Your task to perform on an android device: change timer sound Image 0: 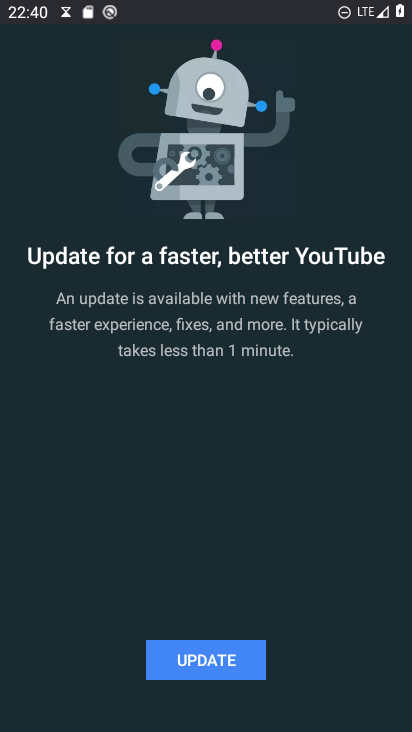
Step 0: press home button
Your task to perform on an android device: change timer sound Image 1: 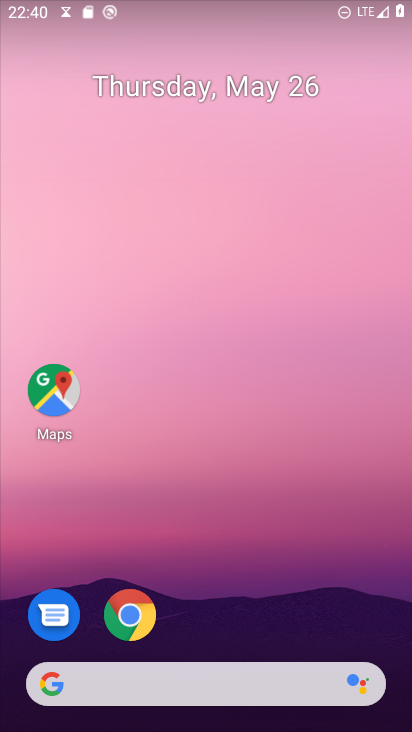
Step 1: drag from (280, 599) to (311, 246)
Your task to perform on an android device: change timer sound Image 2: 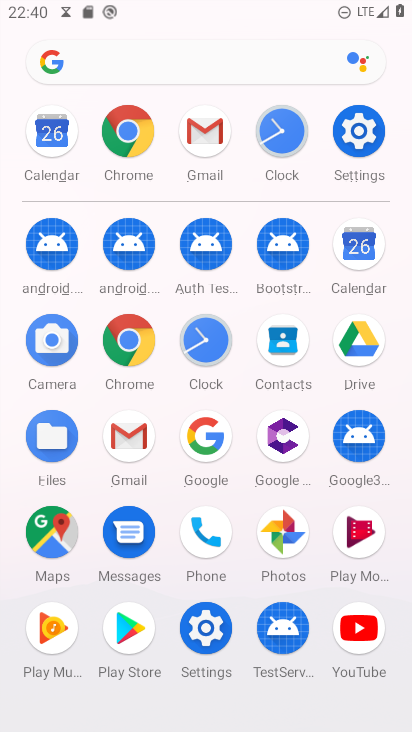
Step 2: click (280, 116)
Your task to perform on an android device: change timer sound Image 3: 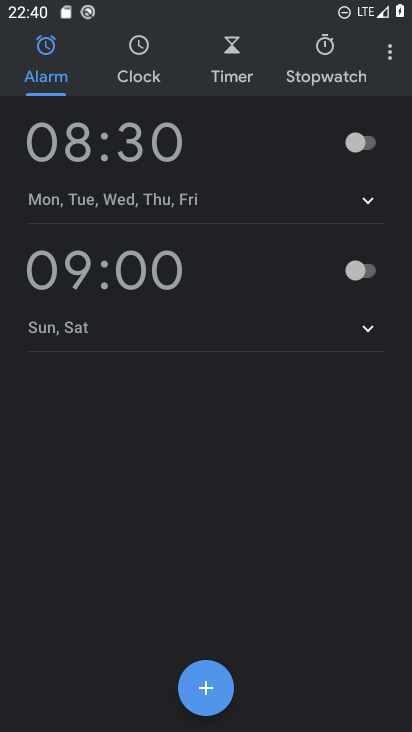
Step 3: click (393, 43)
Your task to perform on an android device: change timer sound Image 4: 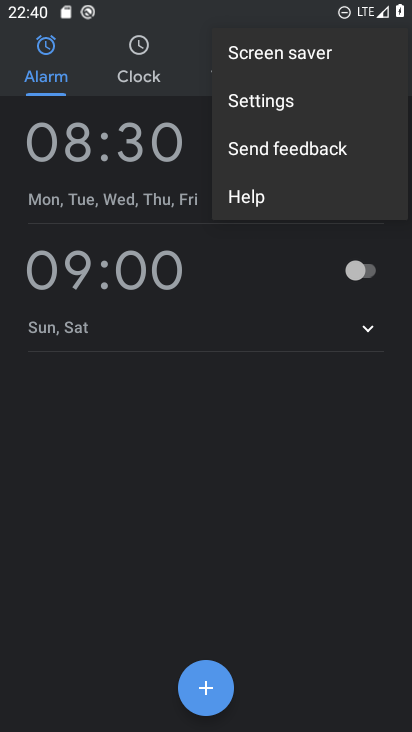
Step 4: click (262, 103)
Your task to perform on an android device: change timer sound Image 5: 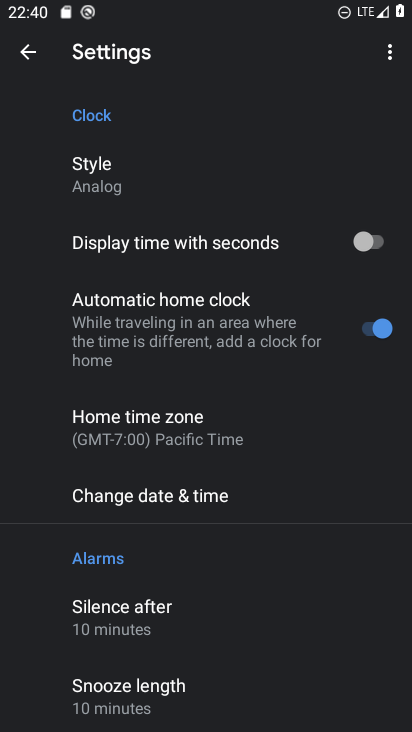
Step 5: drag from (205, 612) to (257, 226)
Your task to perform on an android device: change timer sound Image 6: 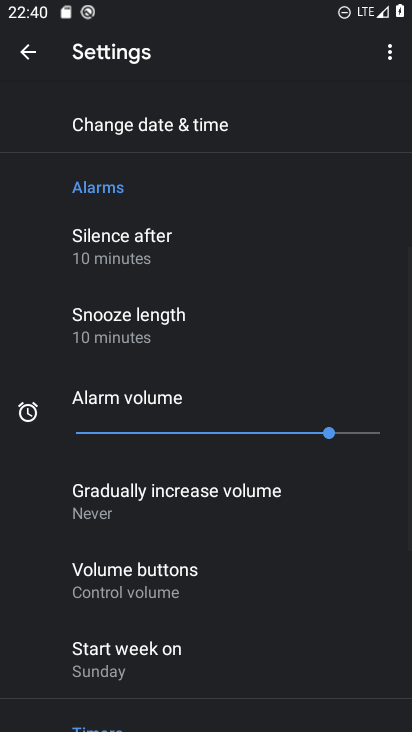
Step 6: drag from (233, 633) to (277, 281)
Your task to perform on an android device: change timer sound Image 7: 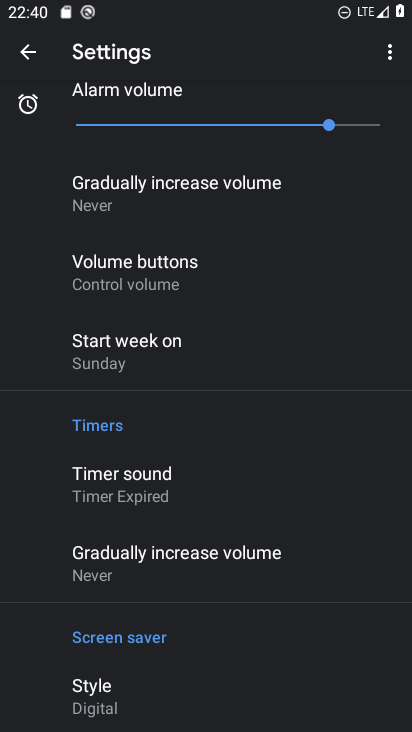
Step 7: click (128, 463)
Your task to perform on an android device: change timer sound Image 8: 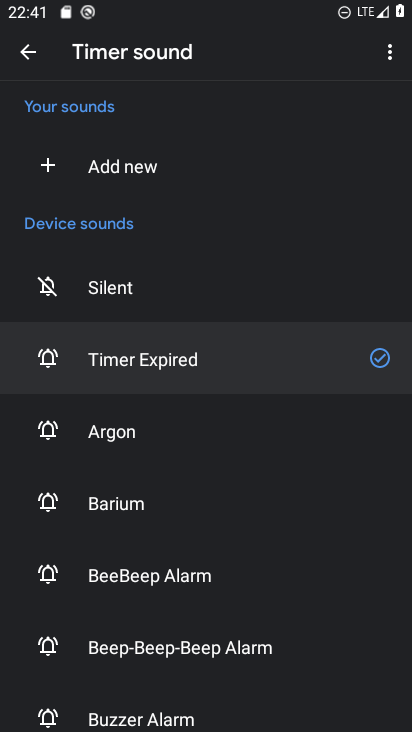
Step 8: click (168, 427)
Your task to perform on an android device: change timer sound Image 9: 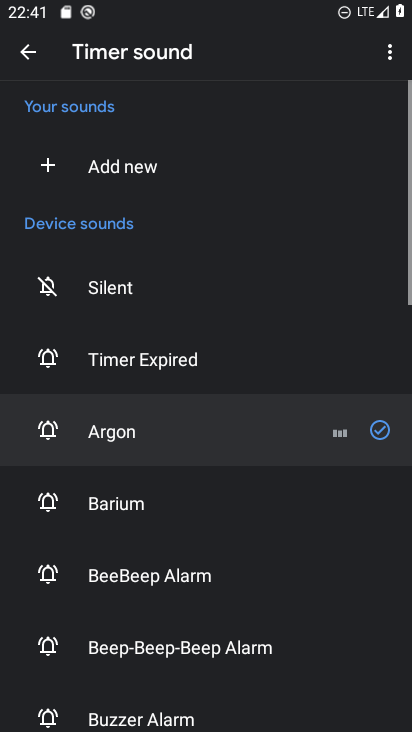
Step 9: task complete